Your task to perform on an android device: Find coffee shops on Maps Image 0: 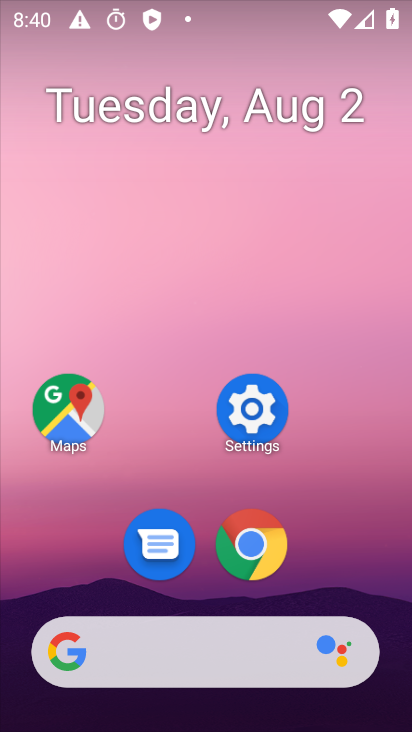
Step 0: press home button
Your task to perform on an android device: Find coffee shops on Maps Image 1: 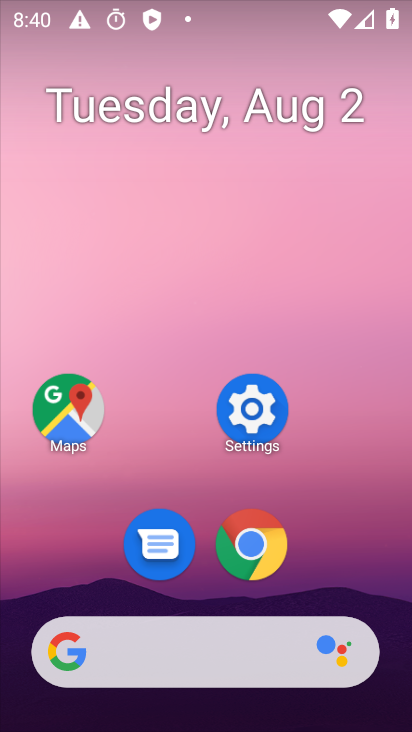
Step 1: click (258, 415)
Your task to perform on an android device: Find coffee shops on Maps Image 2: 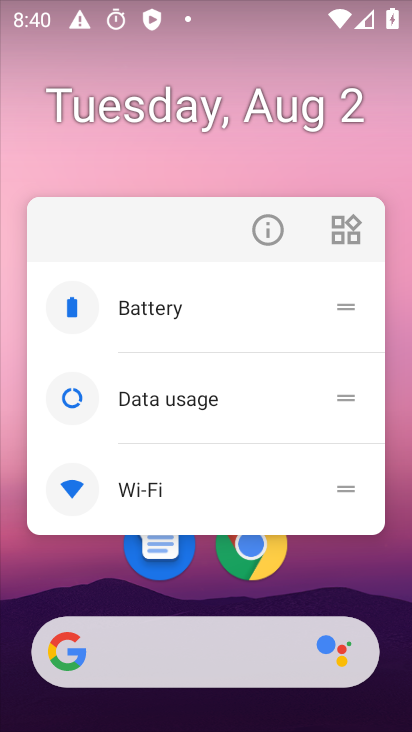
Step 2: press home button
Your task to perform on an android device: Find coffee shops on Maps Image 3: 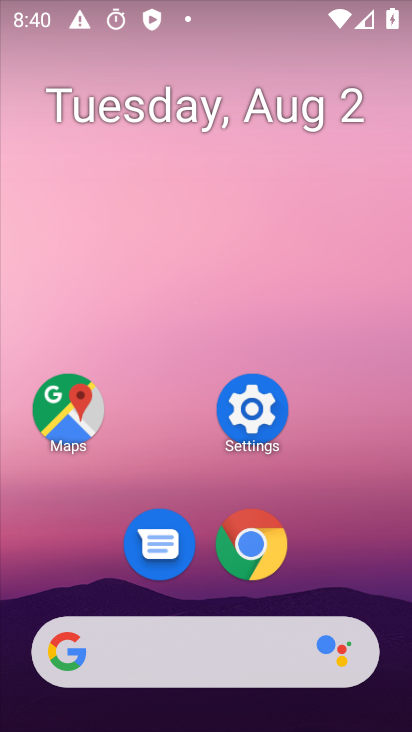
Step 3: click (72, 408)
Your task to perform on an android device: Find coffee shops on Maps Image 4: 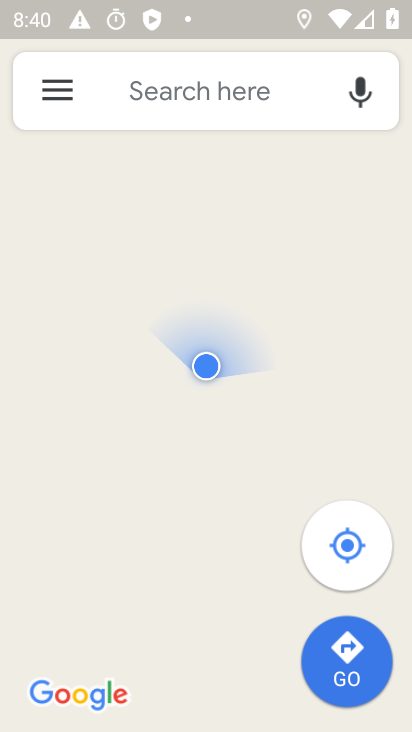
Step 4: click (187, 83)
Your task to perform on an android device: Find coffee shops on Maps Image 5: 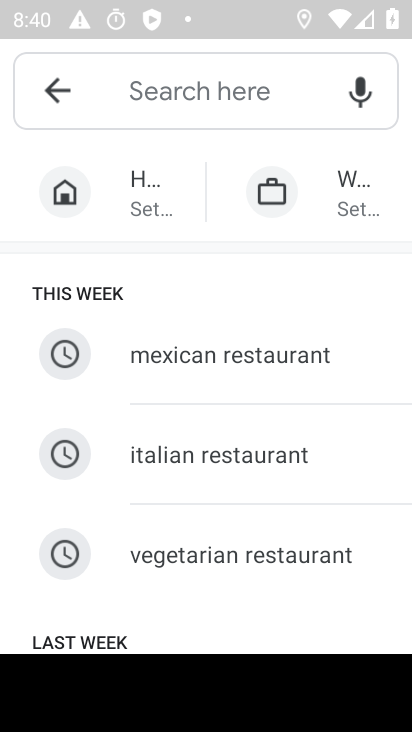
Step 5: drag from (231, 590) to (347, 140)
Your task to perform on an android device: Find coffee shops on Maps Image 6: 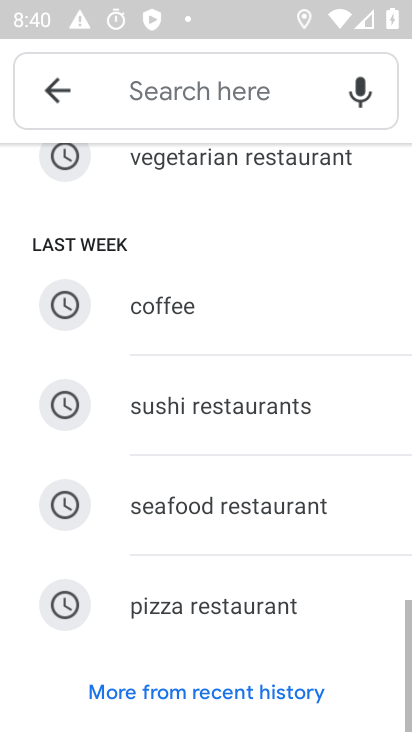
Step 6: click (172, 347)
Your task to perform on an android device: Find coffee shops on Maps Image 7: 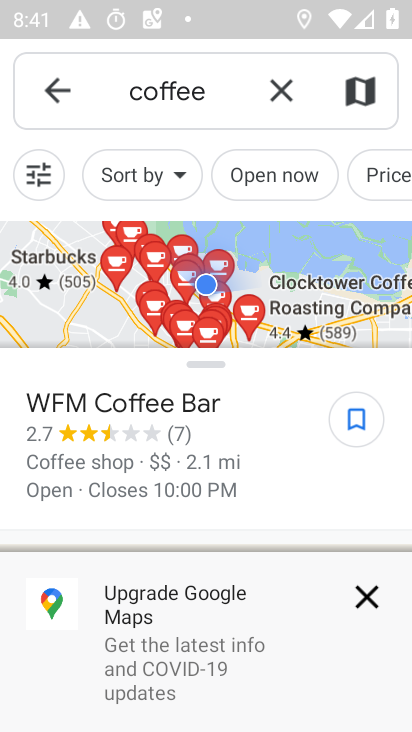
Step 7: click (372, 587)
Your task to perform on an android device: Find coffee shops on Maps Image 8: 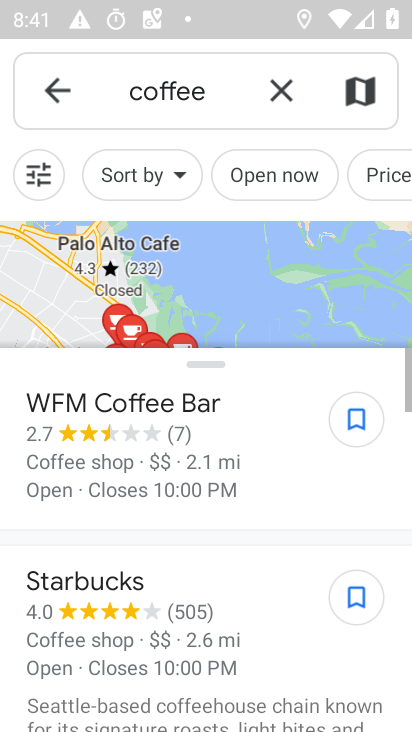
Step 8: task complete